Your task to perform on an android device: Play the last video I watched on Youtube Image 0: 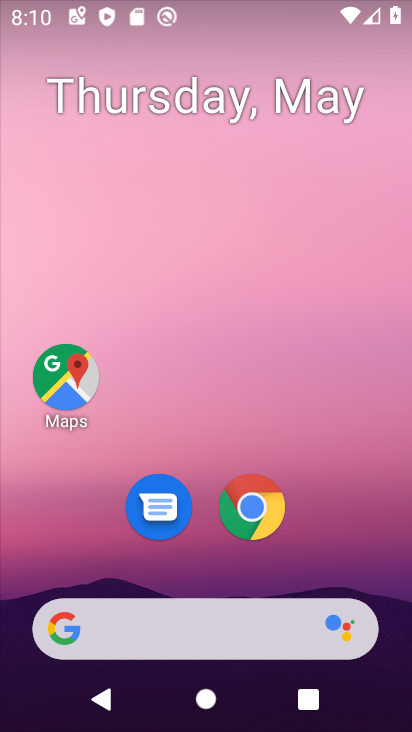
Step 0: drag from (277, 628) to (298, 291)
Your task to perform on an android device: Play the last video I watched on Youtube Image 1: 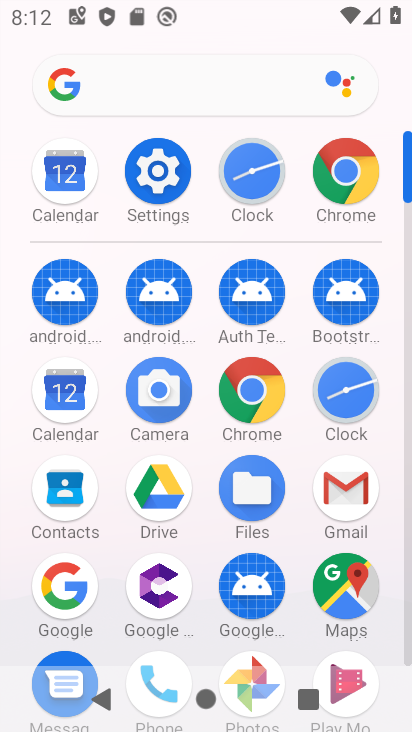
Step 1: drag from (295, 521) to (317, 303)
Your task to perform on an android device: Play the last video I watched on Youtube Image 2: 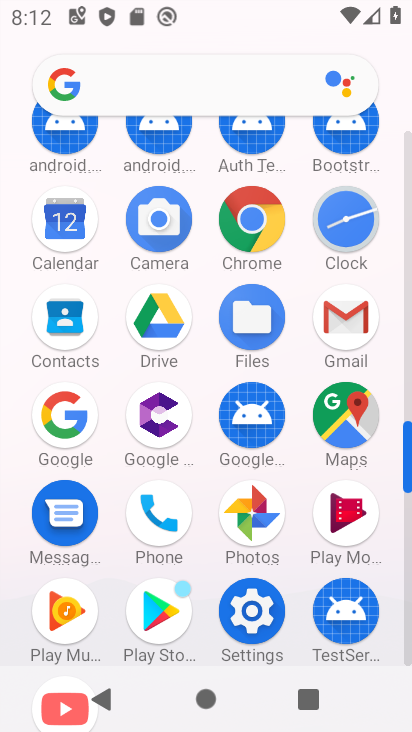
Step 2: drag from (113, 564) to (121, 488)
Your task to perform on an android device: Play the last video I watched on Youtube Image 3: 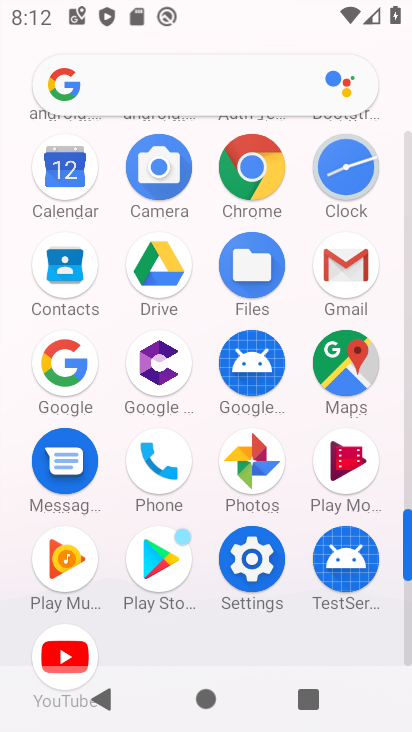
Step 3: click (63, 638)
Your task to perform on an android device: Play the last video I watched on Youtube Image 4: 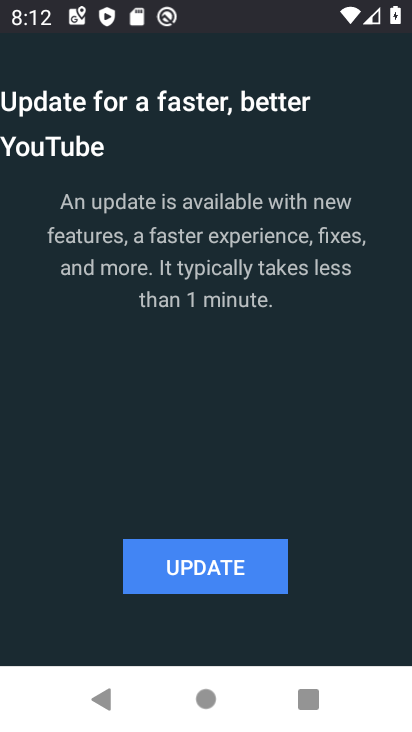
Step 4: click (191, 569)
Your task to perform on an android device: Play the last video I watched on Youtube Image 5: 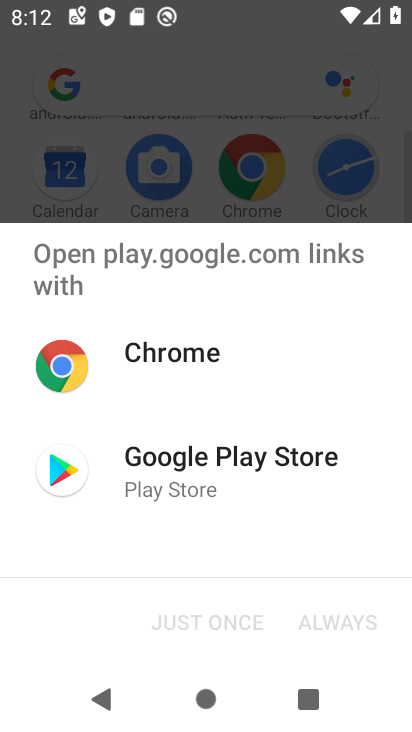
Step 5: click (163, 483)
Your task to perform on an android device: Play the last video I watched on Youtube Image 6: 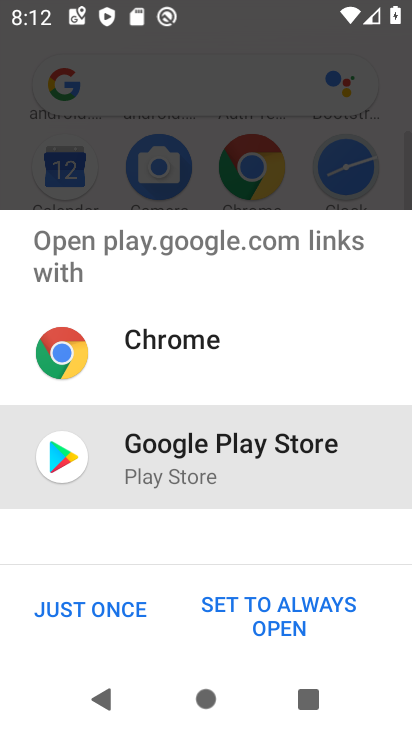
Step 6: click (115, 605)
Your task to perform on an android device: Play the last video I watched on Youtube Image 7: 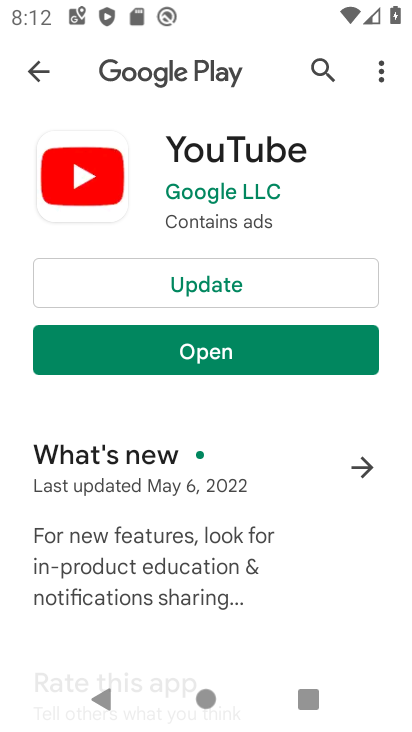
Step 7: click (178, 271)
Your task to perform on an android device: Play the last video I watched on Youtube Image 8: 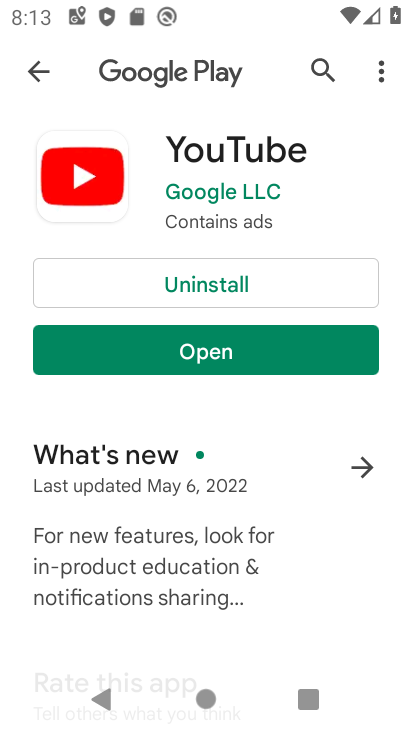
Step 8: click (212, 357)
Your task to perform on an android device: Play the last video I watched on Youtube Image 9: 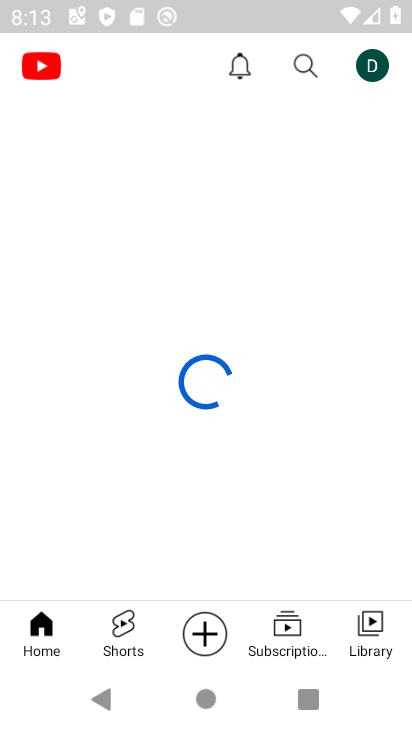
Step 9: click (363, 641)
Your task to perform on an android device: Play the last video I watched on Youtube Image 10: 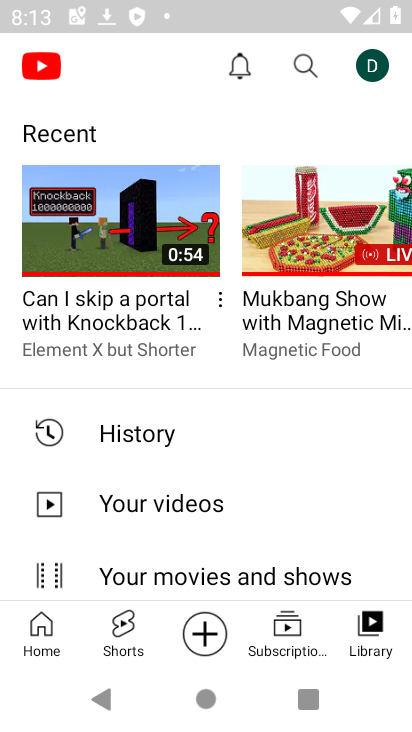
Step 10: click (115, 274)
Your task to perform on an android device: Play the last video I watched on Youtube Image 11: 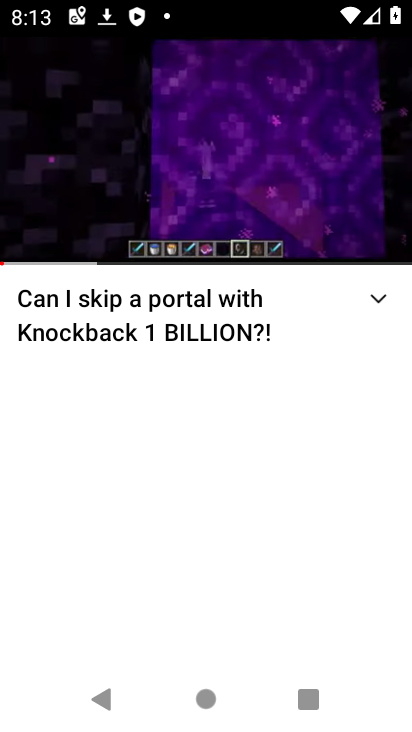
Step 11: task complete